Your task to perform on an android device: Search for sushi restaurants on Maps Image 0: 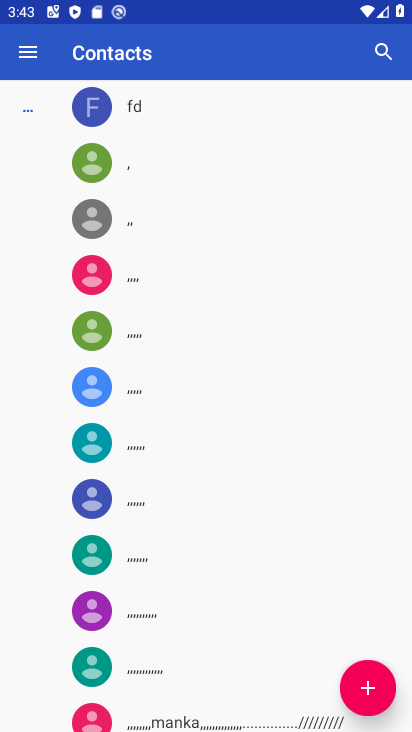
Step 0: press home button
Your task to perform on an android device: Search for sushi restaurants on Maps Image 1: 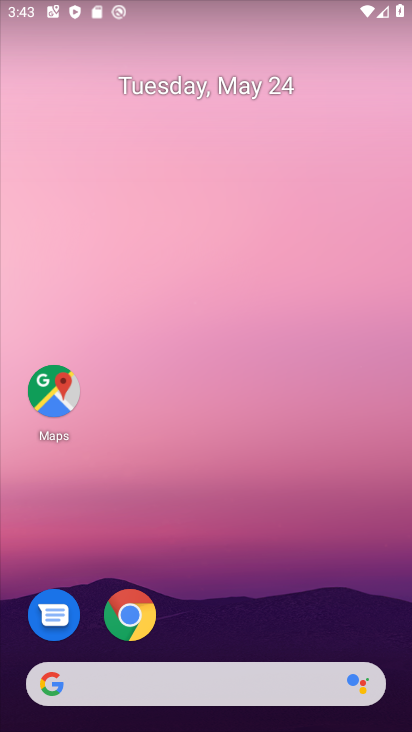
Step 1: drag from (228, 665) to (201, 166)
Your task to perform on an android device: Search for sushi restaurants on Maps Image 2: 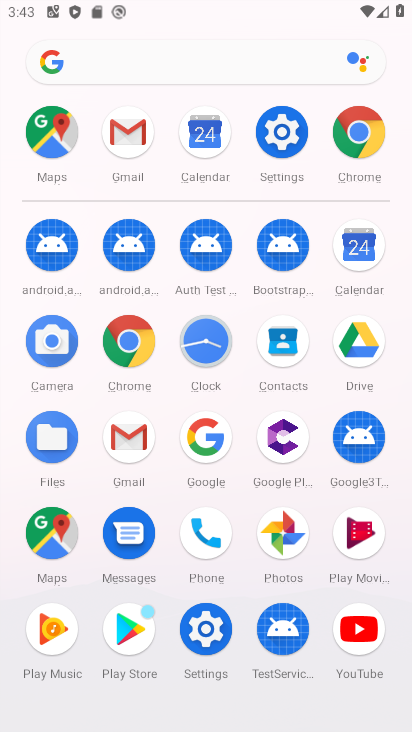
Step 2: click (50, 534)
Your task to perform on an android device: Search for sushi restaurants on Maps Image 3: 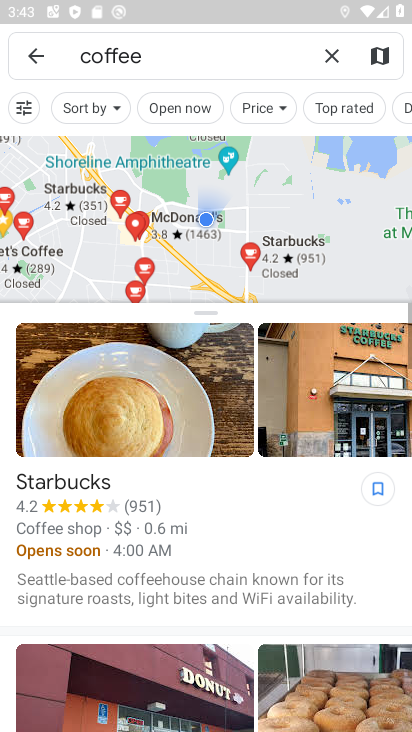
Step 3: click (329, 53)
Your task to perform on an android device: Search for sushi restaurants on Maps Image 4: 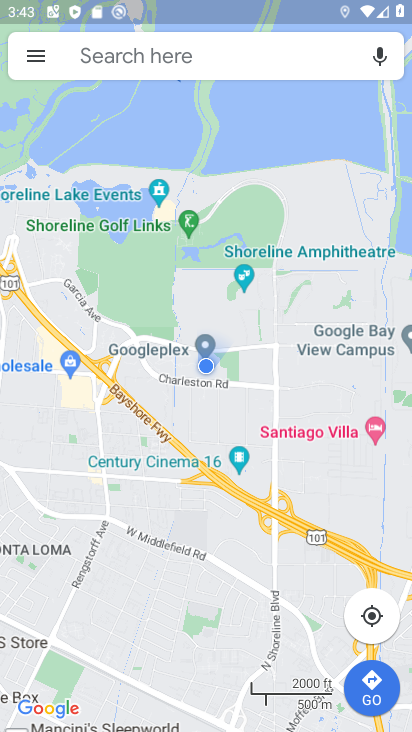
Step 4: click (152, 55)
Your task to perform on an android device: Search for sushi restaurants on Maps Image 5: 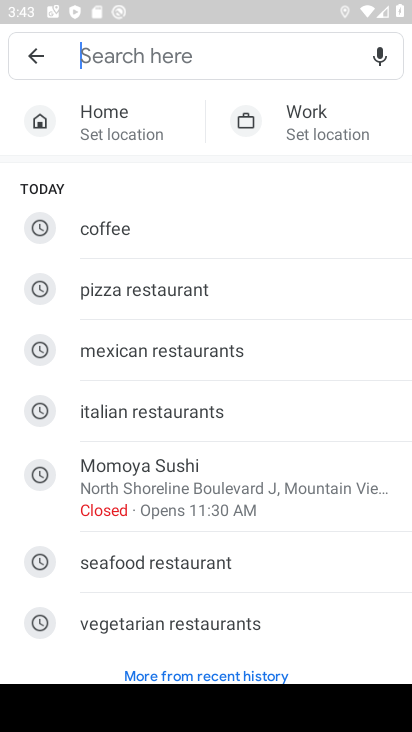
Step 5: type "sushi restaurants"
Your task to perform on an android device: Search for sushi restaurants on Maps Image 6: 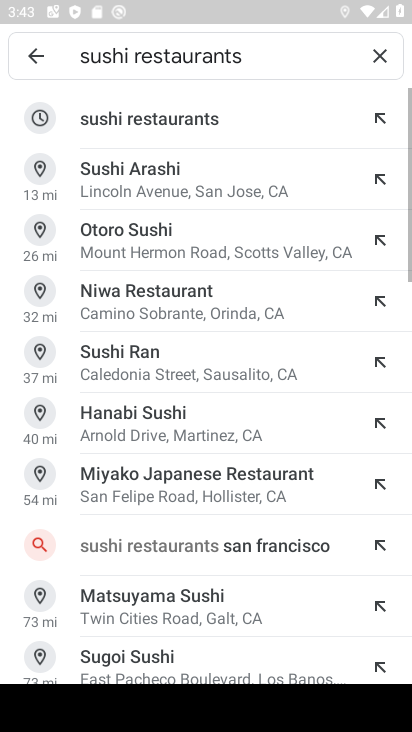
Step 6: click (139, 123)
Your task to perform on an android device: Search for sushi restaurants on Maps Image 7: 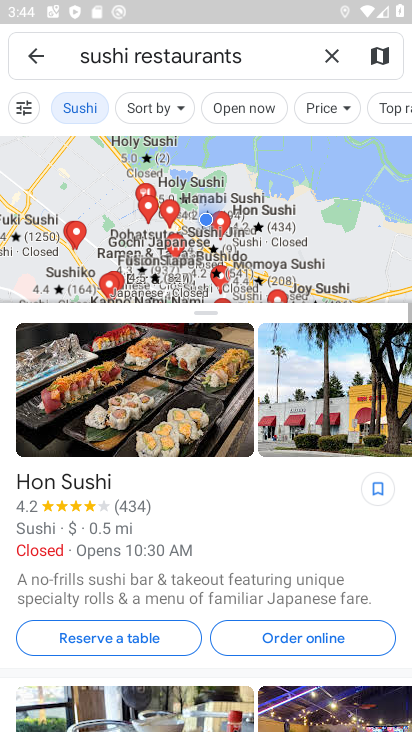
Step 7: task complete